Your task to perform on an android device: show emergency info Image 0: 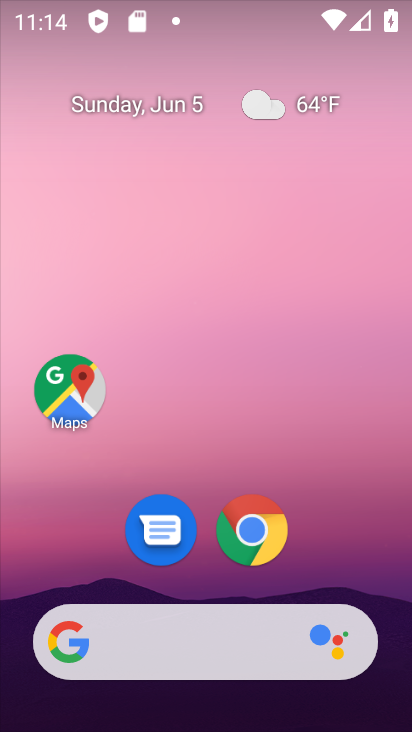
Step 0: drag from (356, 566) to (203, 0)
Your task to perform on an android device: show emergency info Image 1: 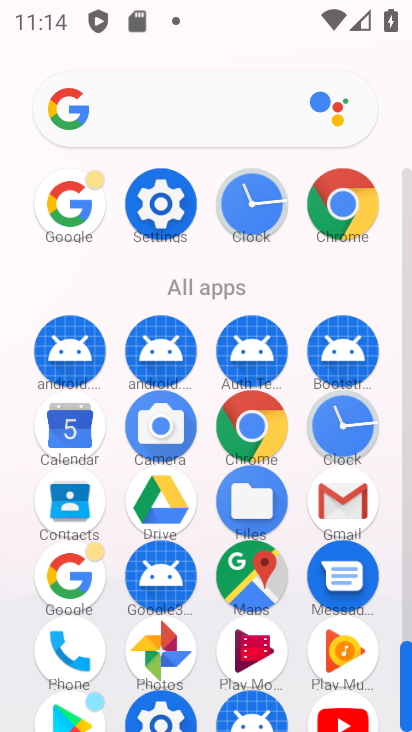
Step 1: click (164, 198)
Your task to perform on an android device: show emergency info Image 2: 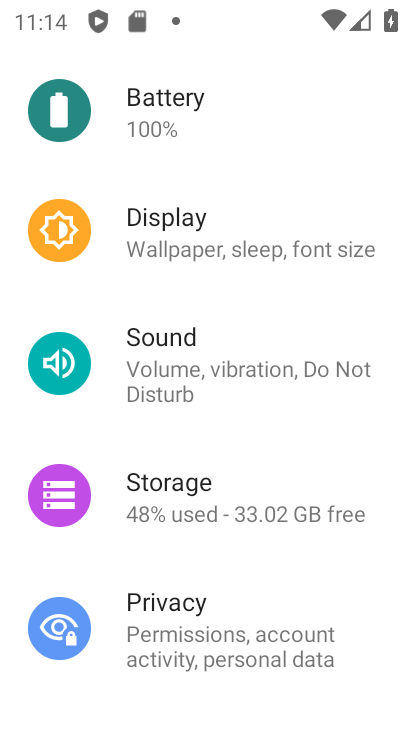
Step 2: drag from (191, 629) to (214, 79)
Your task to perform on an android device: show emergency info Image 3: 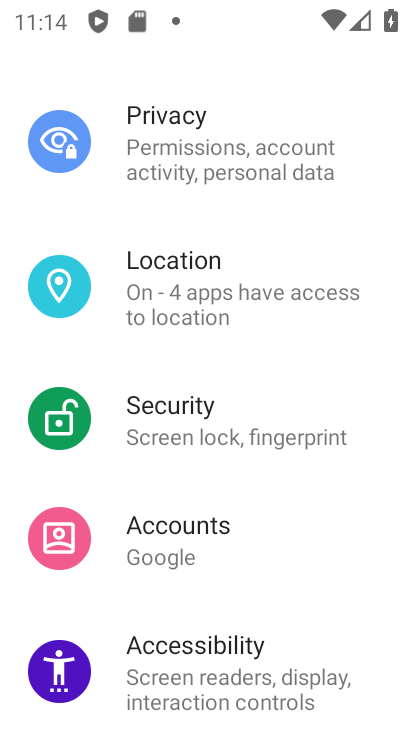
Step 3: drag from (245, 581) to (328, 130)
Your task to perform on an android device: show emergency info Image 4: 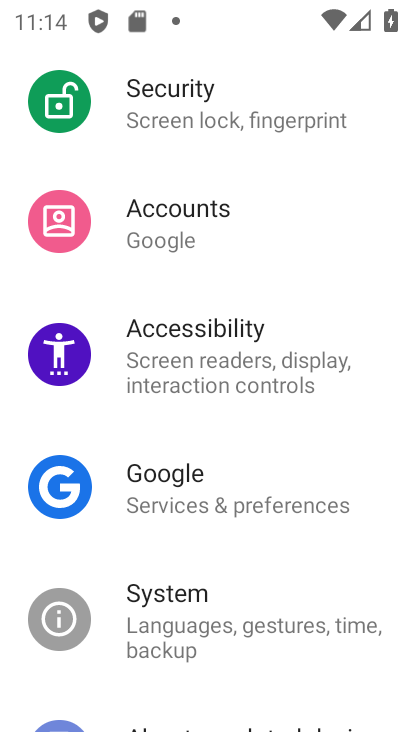
Step 4: drag from (227, 680) to (293, 153)
Your task to perform on an android device: show emergency info Image 5: 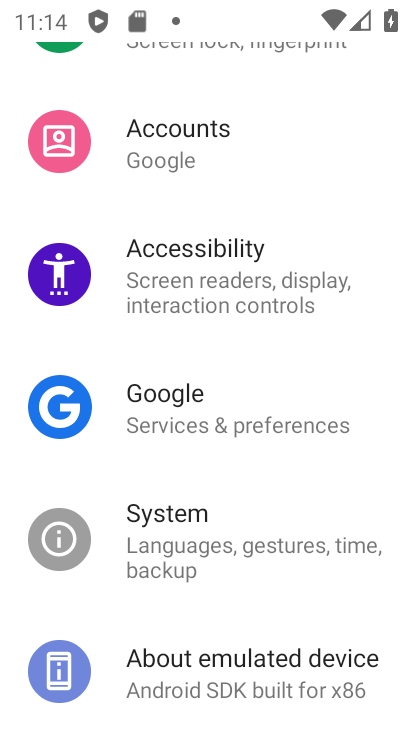
Step 5: click (211, 678)
Your task to perform on an android device: show emergency info Image 6: 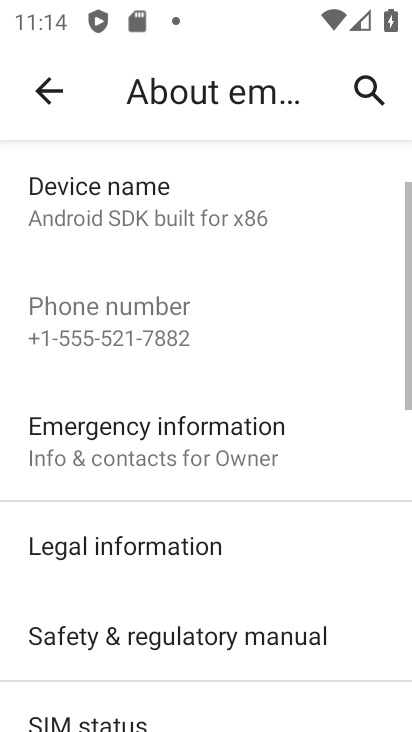
Step 6: click (147, 476)
Your task to perform on an android device: show emergency info Image 7: 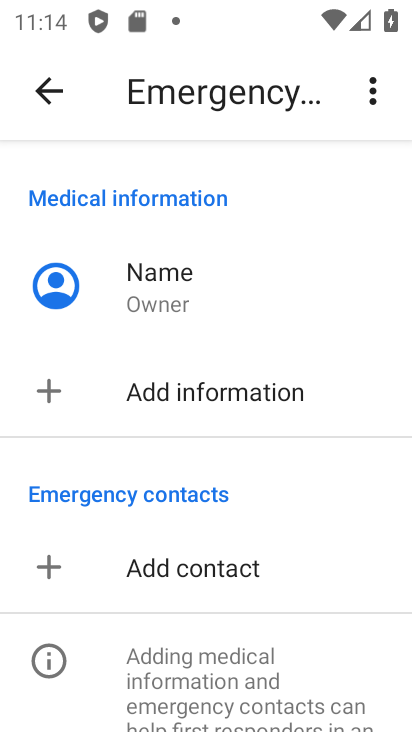
Step 7: task complete